Your task to perform on an android device: Check the news Image 0: 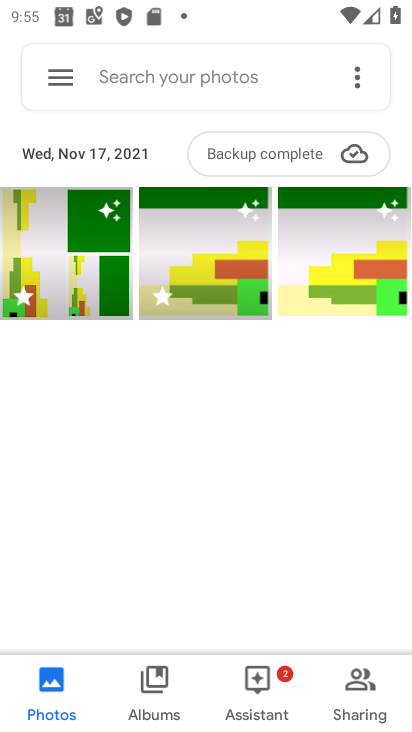
Step 0: press home button
Your task to perform on an android device: Check the news Image 1: 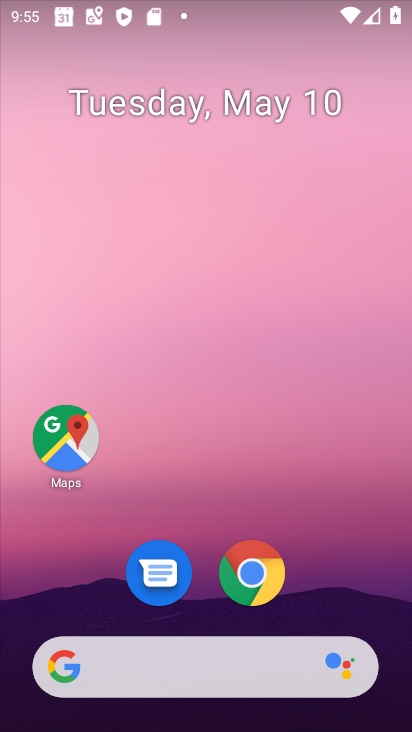
Step 1: task complete